Your task to perform on an android device: Open calendar and show me the third week of next month Image 0: 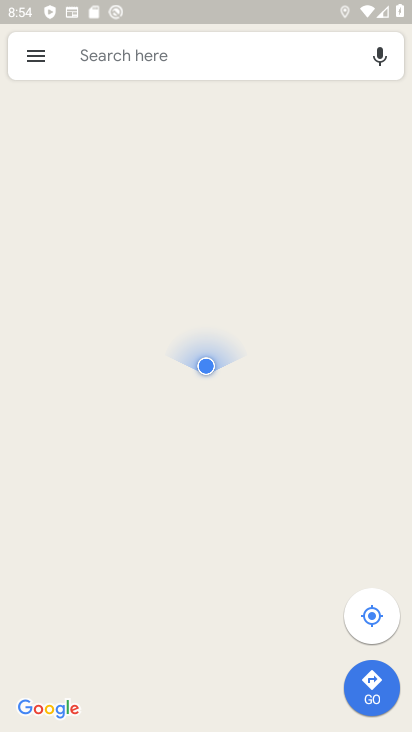
Step 0: press home button
Your task to perform on an android device: Open calendar and show me the third week of next month Image 1: 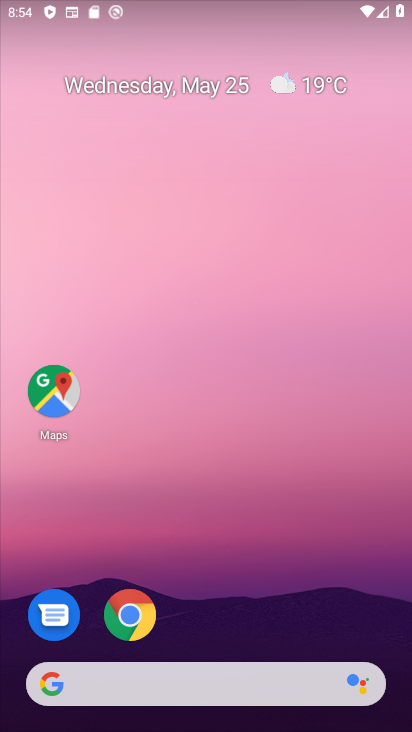
Step 1: drag from (267, 686) to (318, 170)
Your task to perform on an android device: Open calendar and show me the third week of next month Image 2: 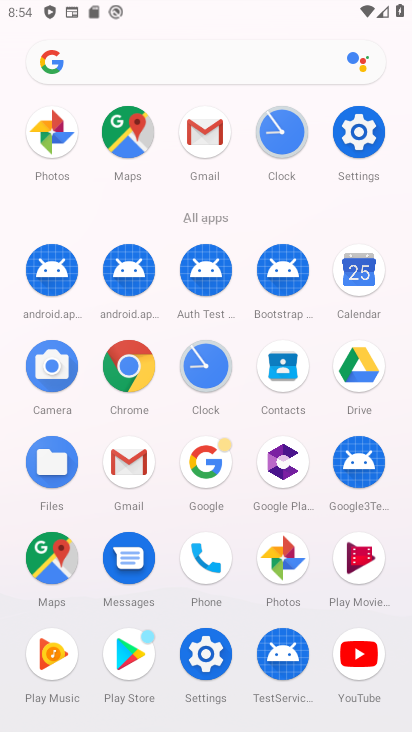
Step 2: click (349, 264)
Your task to perform on an android device: Open calendar and show me the third week of next month Image 3: 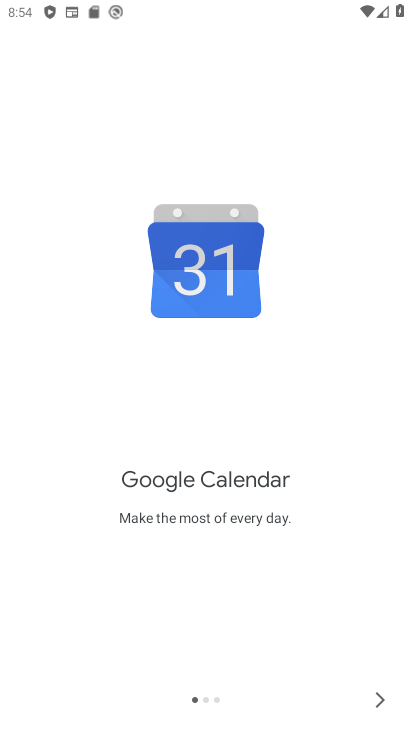
Step 3: click (355, 705)
Your task to perform on an android device: Open calendar and show me the third week of next month Image 4: 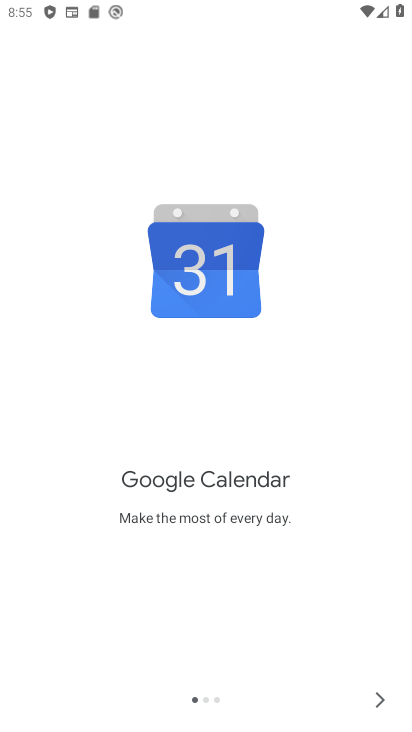
Step 4: click (389, 700)
Your task to perform on an android device: Open calendar and show me the third week of next month Image 5: 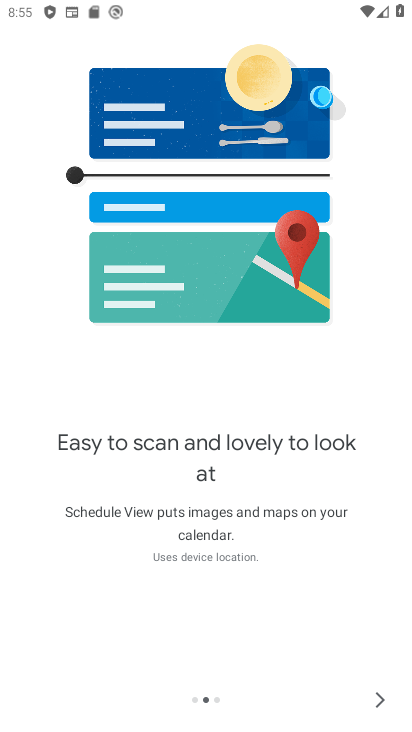
Step 5: click (389, 700)
Your task to perform on an android device: Open calendar and show me the third week of next month Image 6: 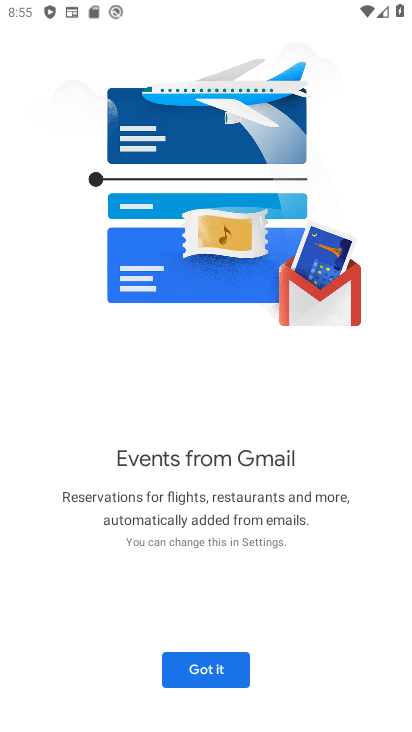
Step 6: click (229, 669)
Your task to perform on an android device: Open calendar and show me the third week of next month Image 7: 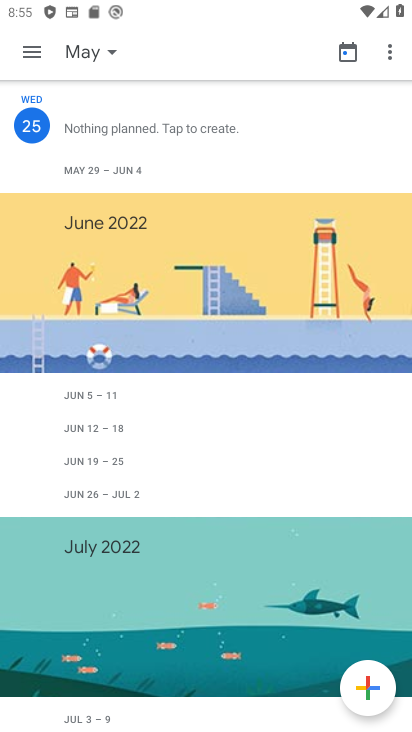
Step 7: click (22, 44)
Your task to perform on an android device: Open calendar and show me the third week of next month Image 8: 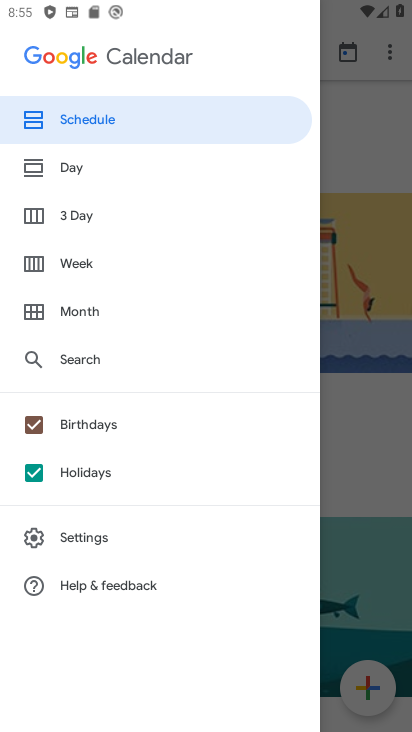
Step 8: click (89, 308)
Your task to perform on an android device: Open calendar and show me the third week of next month Image 9: 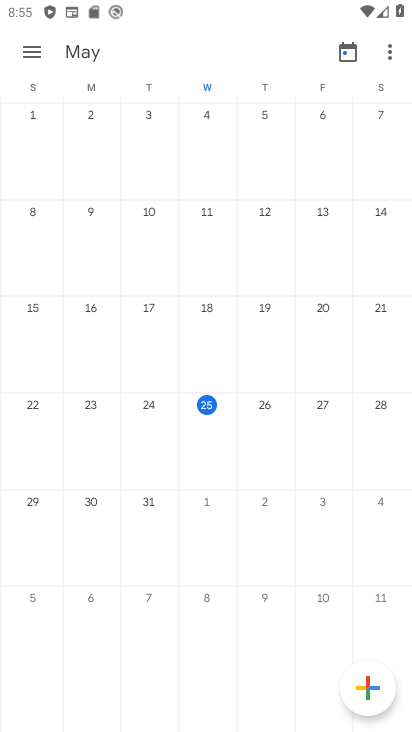
Step 9: drag from (323, 392) to (0, 476)
Your task to perform on an android device: Open calendar and show me the third week of next month Image 10: 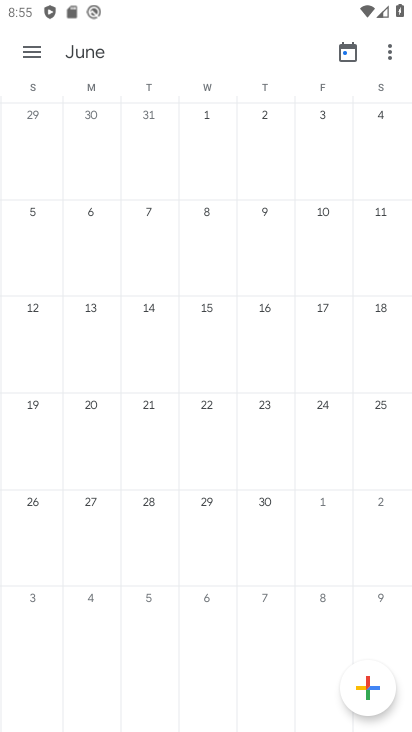
Step 10: click (99, 373)
Your task to perform on an android device: Open calendar and show me the third week of next month Image 11: 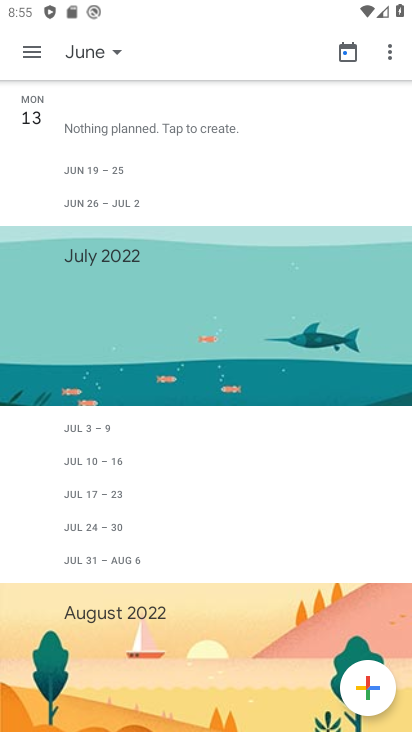
Step 11: task complete